Your task to perform on an android device: star an email in the gmail app Image 0: 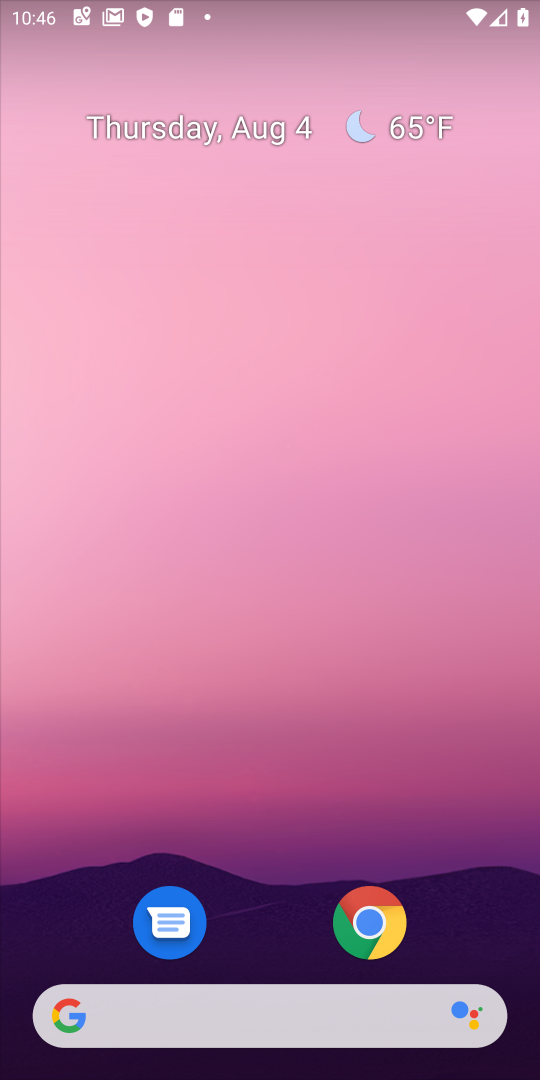
Step 0: drag from (354, 987) to (326, 296)
Your task to perform on an android device: star an email in the gmail app Image 1: 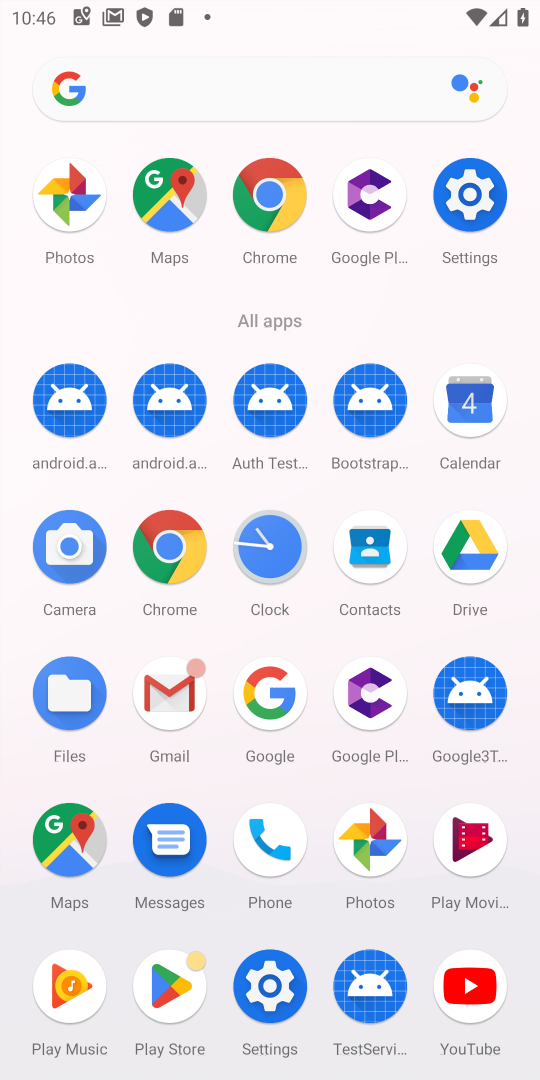
Step 1: click (159, 702)
Your task to perform on an android device: star an email in the gmail app Image 2: 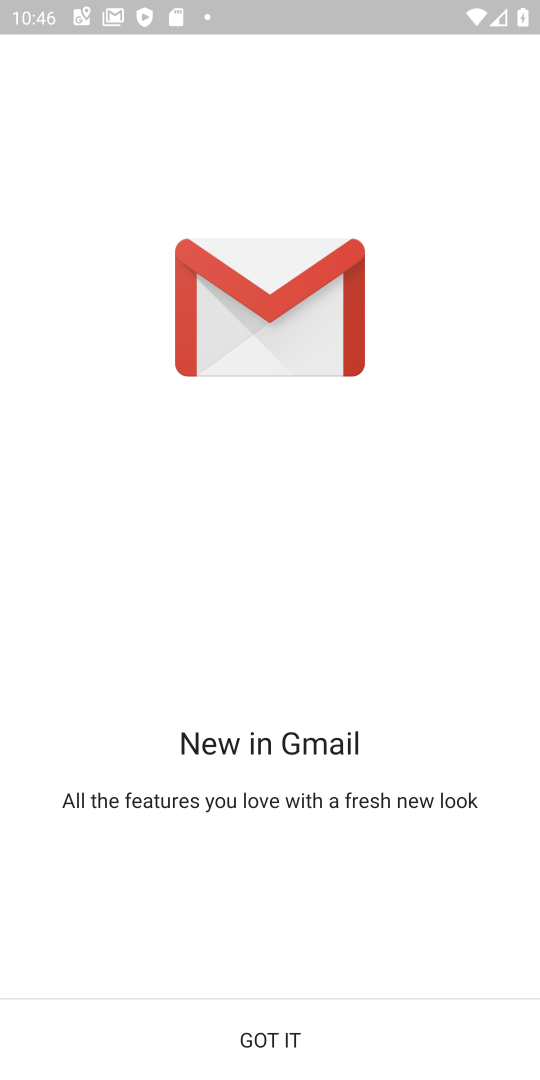
Step 2: click (297, 1039)
Your task to perform on an android device: star an email in the gmail app Image 3: 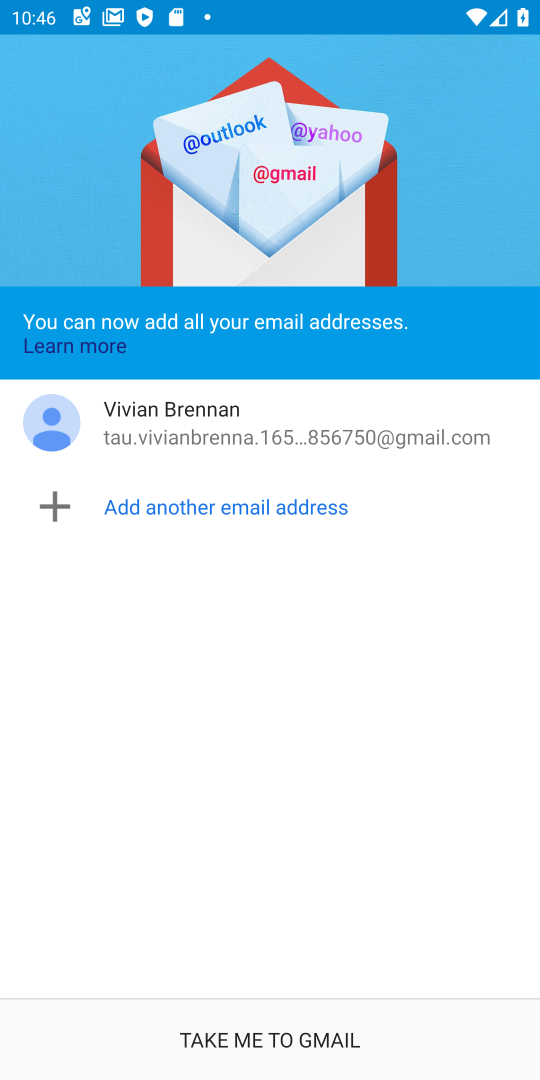
Step 3: click (297, 1039)
Your task to perform on an android device: star an email in the gmail app Image 4: 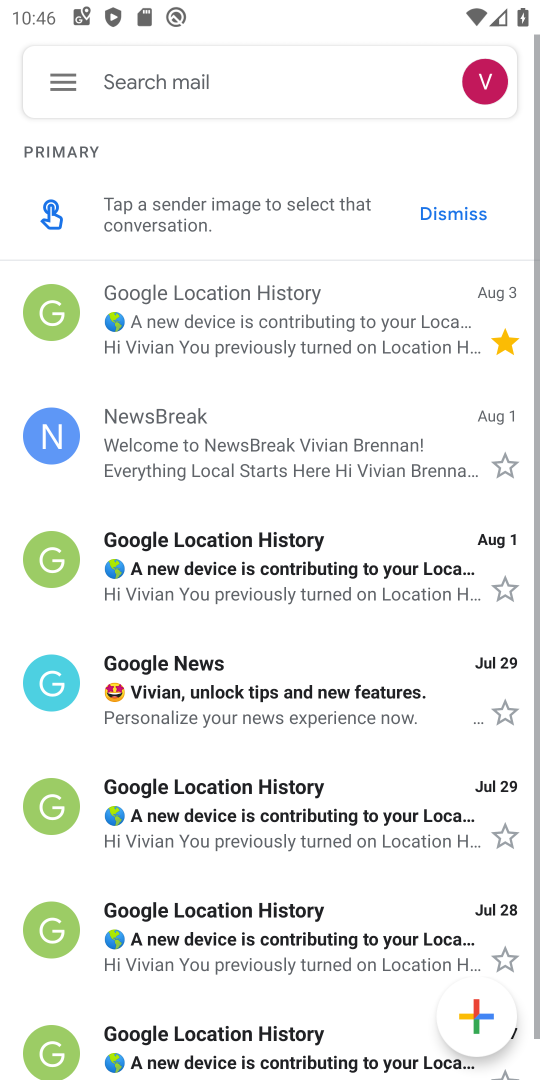
Step 4: click (513, 467)
Your task to perform on an android device: star an email in the gmail app Image 5: 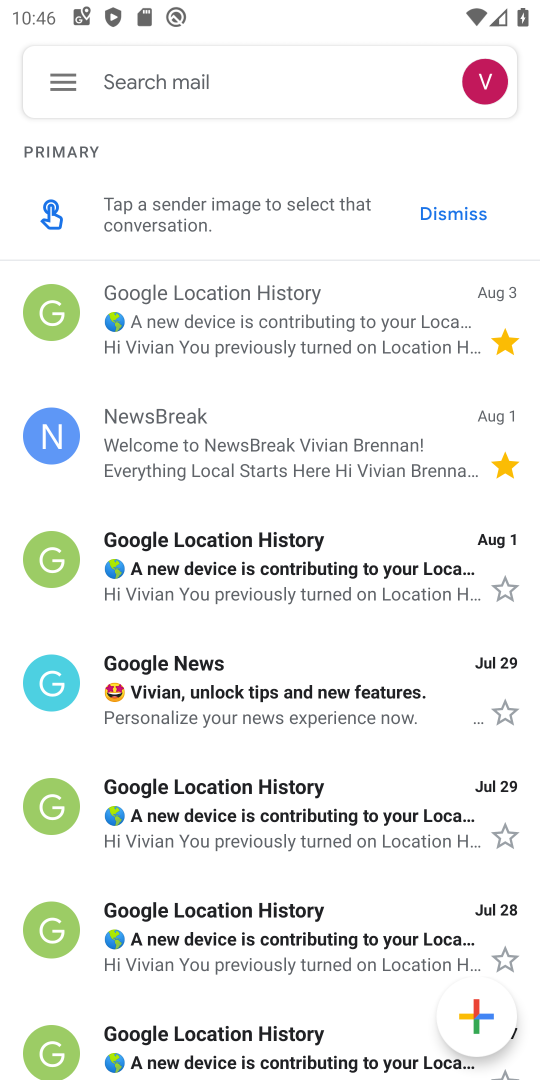
Step 5: task complete